Your task to perform on an android device: Open display settings Image 0: 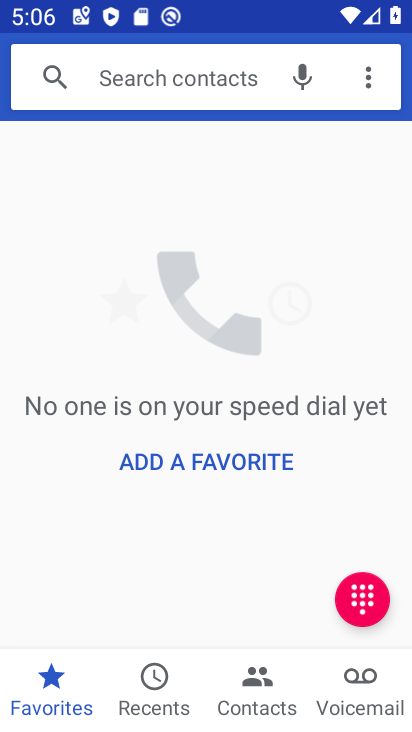
Step 0: press back button
Your task to perform on an android device: Open display settings Image 1: 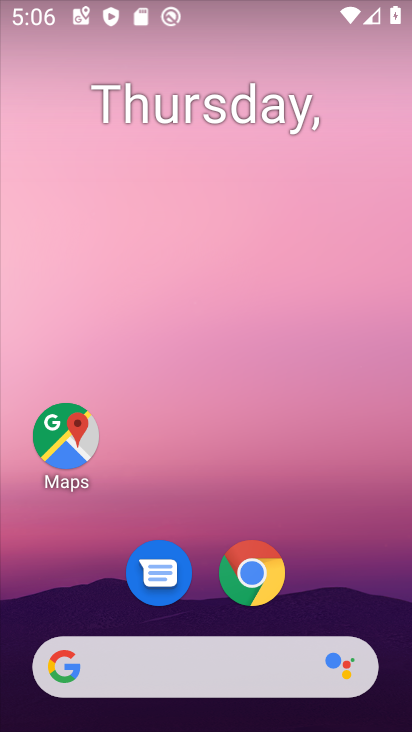
Step 1: drag from (312, 552) to (238, 17)
Your task to perform on an android device: Open display settings Image 2: 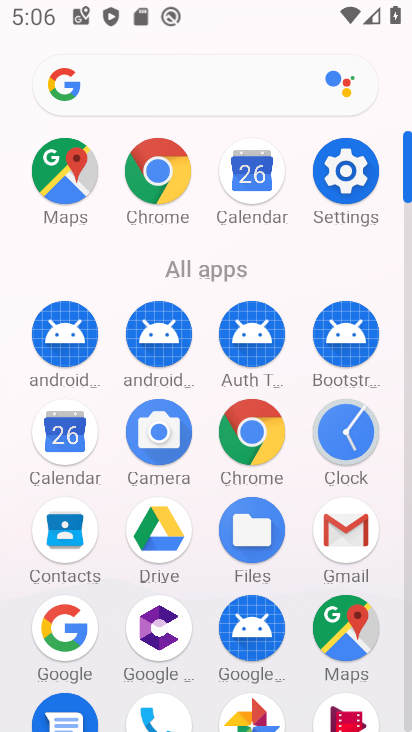
Step 2: drag from (8, 539) to (8, 211)
Your task to perform on an android device: Open display settings Image 3: 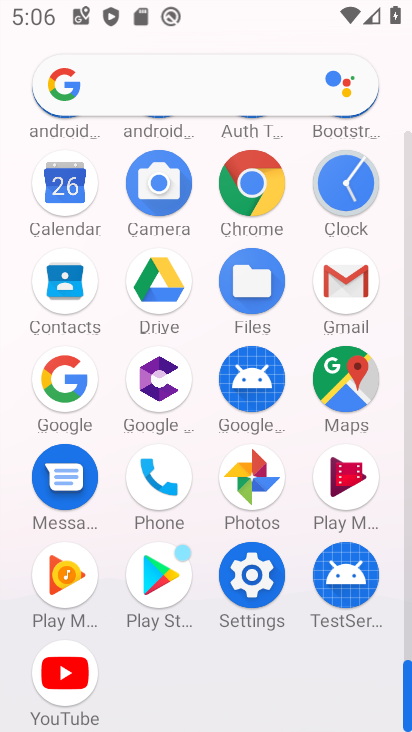
Step 3: click (253, 567)
Your task to perform on an android device: Open display settings Image 4: 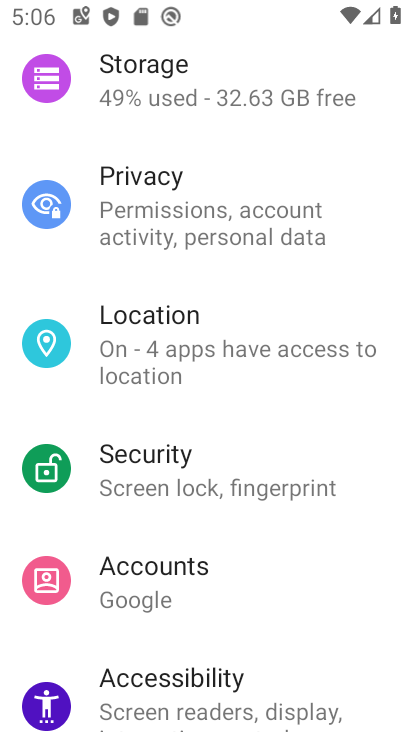
Step 4: drag from (244, 165) to (255, 592)
Your task to perform on an android device: Open display settings Image 5: 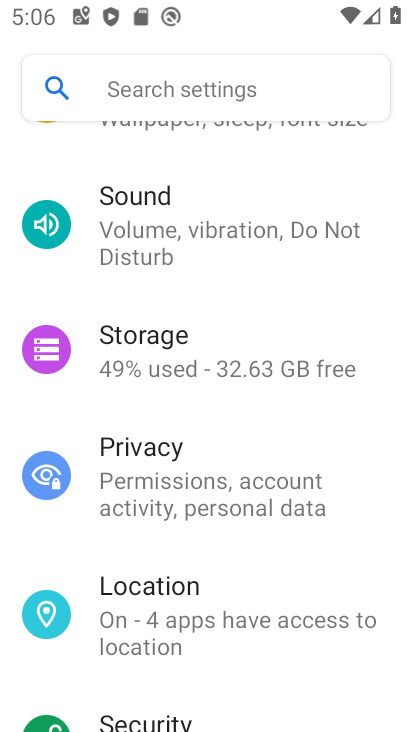
Step 5: drag from (251, 156) to (261, 523)
Your task to perform on an android device: Open display settings Image 6: 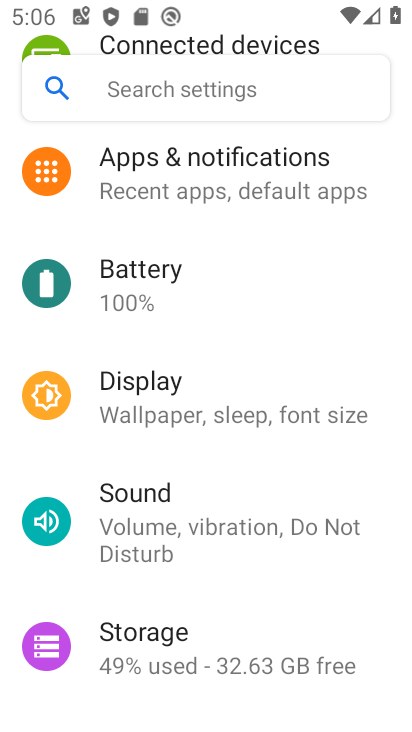
Step 6: drag from (257, 177) to (271, 510)
Your task to perform on an android device: Open display settings Image 7: 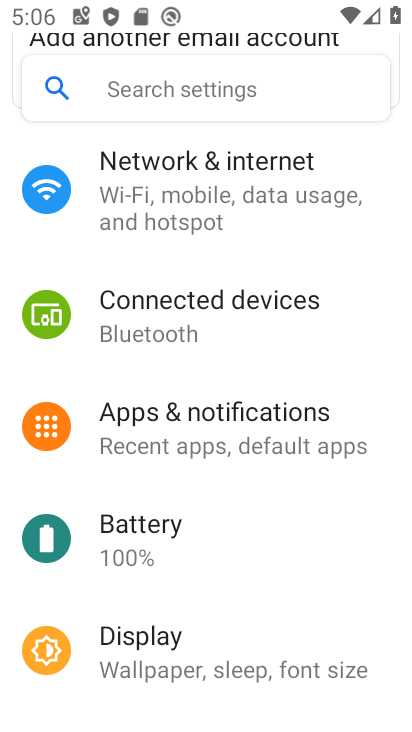
Step 7: click (136, 647)
Your task to perform on an android device: Open display settings Image 8: 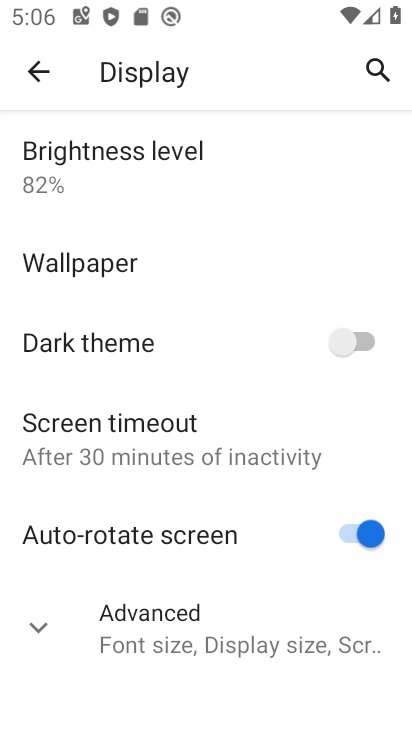
Step 8: click (29, 633)
Your task to perform on an android device: Open display settings Image 9: 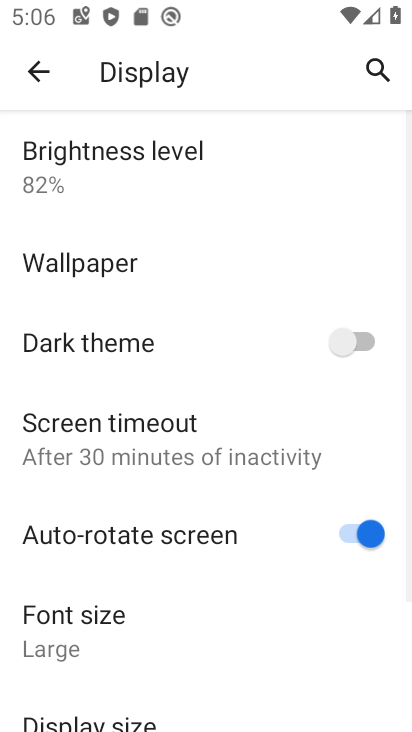
Step 9: task complete